Your task to perform on an android device: turn off picture-in-picture Image 0: 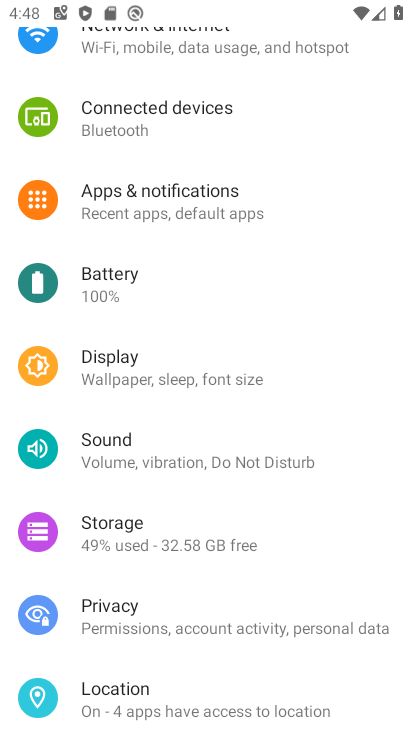
Step 0: press home button
Your task to perform on an android device: turn off picture-in-picture Image 1: 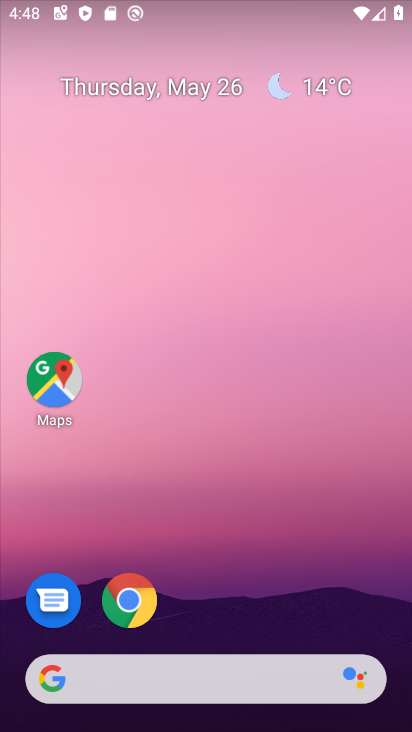
Step 1: click (133, 598)
Your task to perform on an android device: turn off picture-in-picture Image 2: 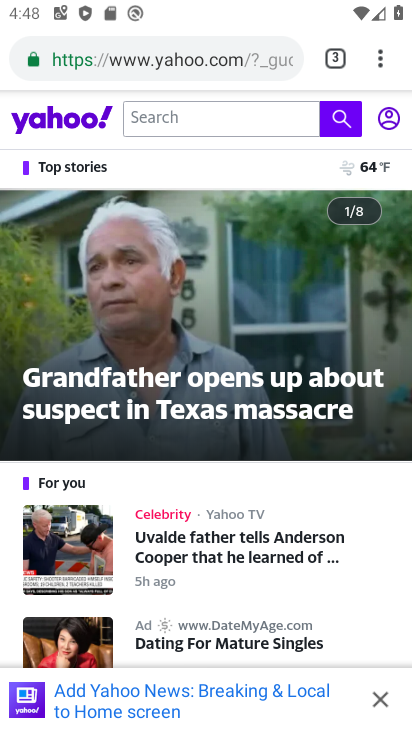
Step 2: press home button
Your task to perform on an android device: turn off picture-in-picture Image 3: 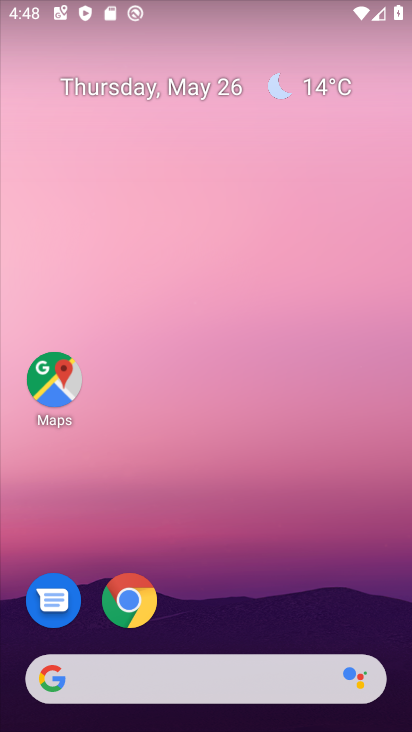
Step 3: click (135, 605)
Your task to perform on an android device: turn off picture-in-picture Image 4: 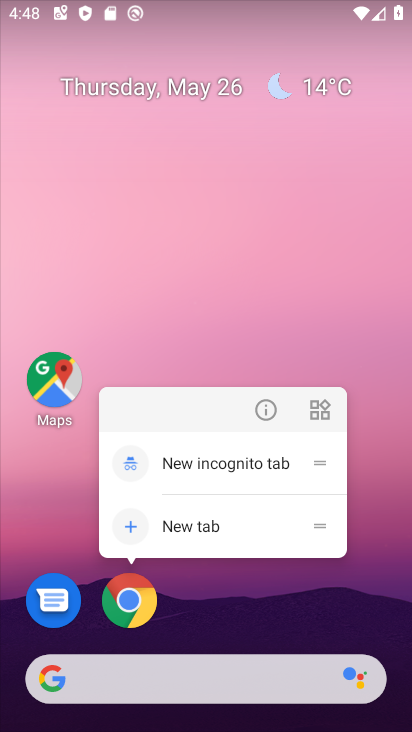
Step 4: click (266, 399)
Your task to perform on an android device: turn off picture-in-picture Image 5: 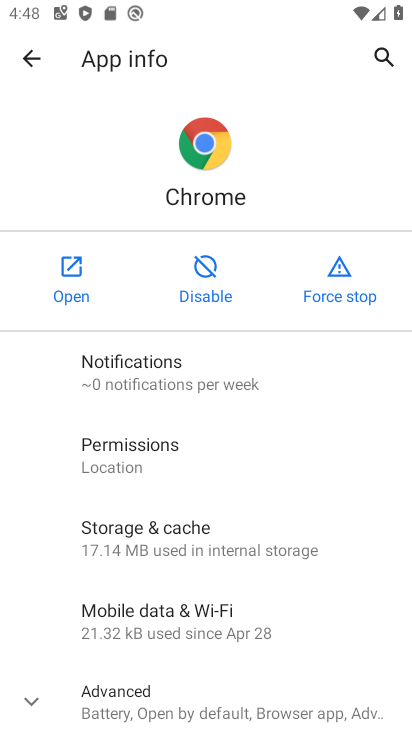
Step 5: drag from (143, 698) to (198, 340)
Your task to perform on an android device: turn off picture-in-picture Image 6: 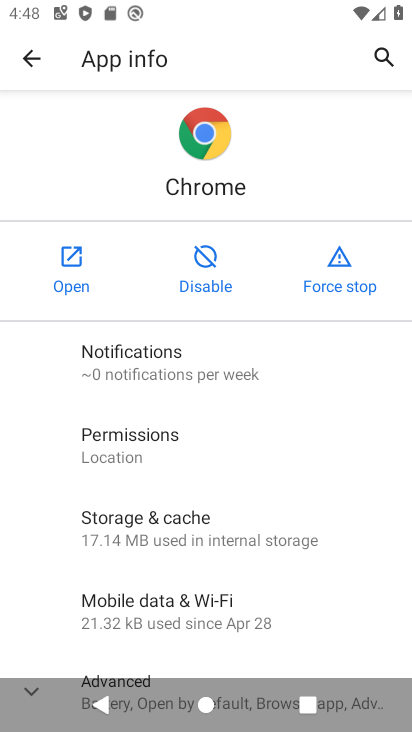
Step 6: drag from (175, 601) to (226, 216)
Your task to perform on an android device: turn off picture-in-picture Image 7: 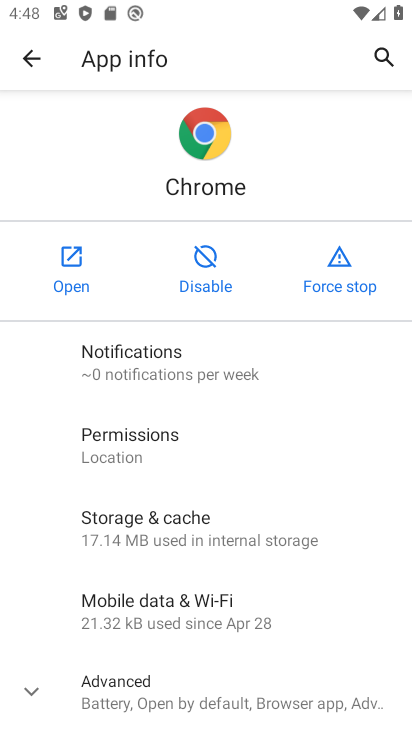
Step 7: click (137, 710)
Your task to perform on an android device: turn off picture-in-picture Image 8: 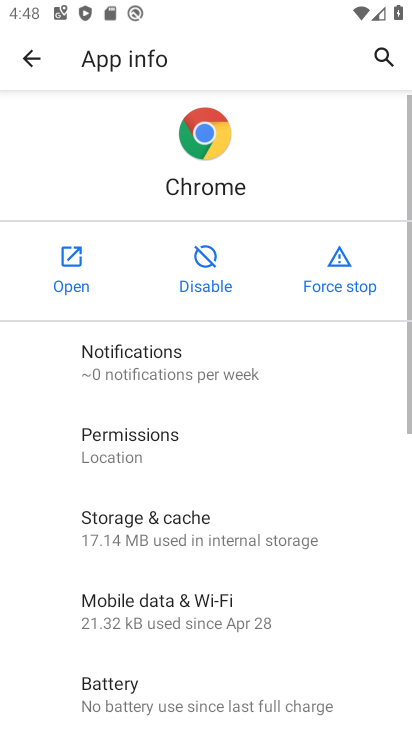
Step 8: drag from (137, 710) to (243, 215)
Your task to perform on an android device: turn off picture-in-picture Image 9: 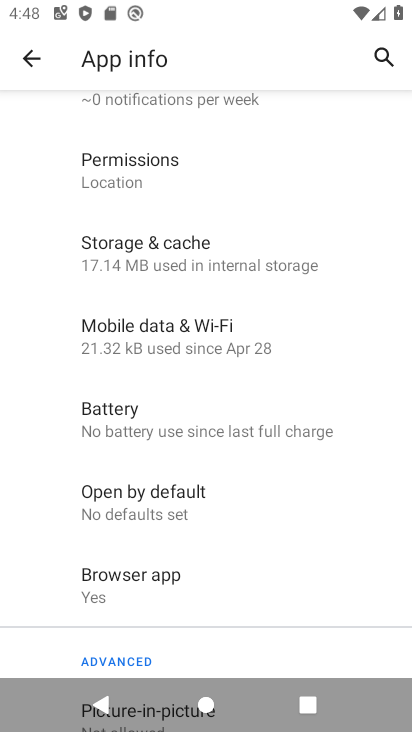
Step 9: drag from (191, 617) to (243, 193)
Your task to perform on an android device: turn off picture-in-picture Image 10: 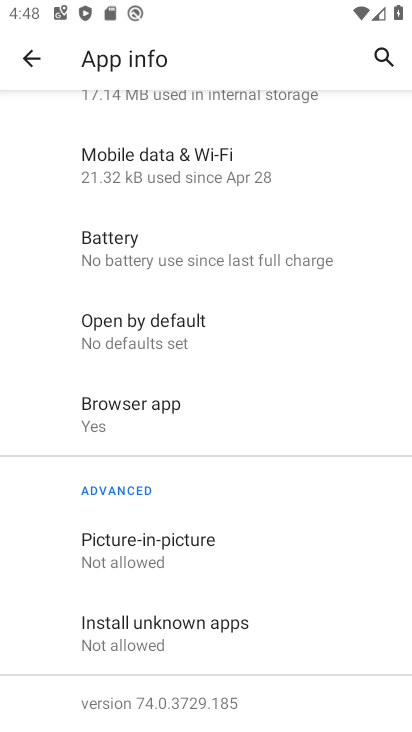
Step 10: click (178, 628)
Your task to perform on an android device: turn off picture-in-picture Image 11: 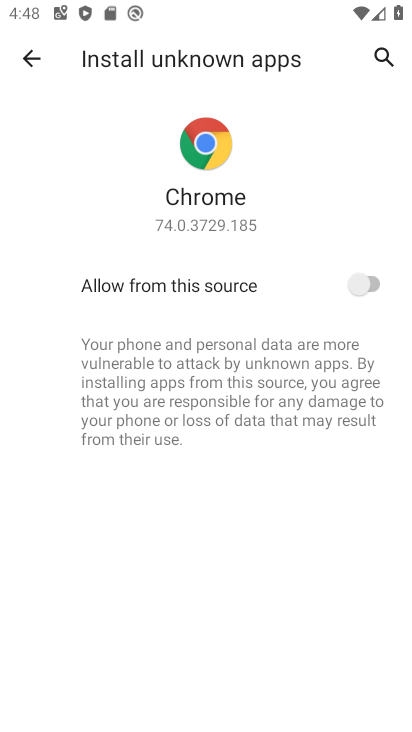
Step 11: task complete